Your task to perform on an android device: open a bookmark in the chrome app Image 0: 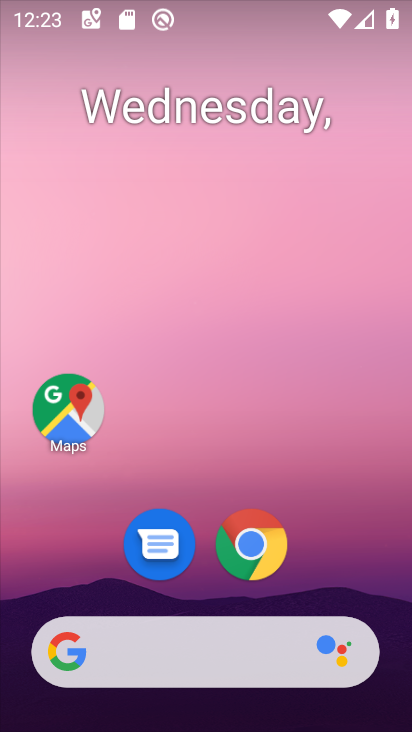
Step 0: drag from (212, 474) to (180, 143)
Your task to perform on an android device: open a bookmark in the chrome app Image 1: 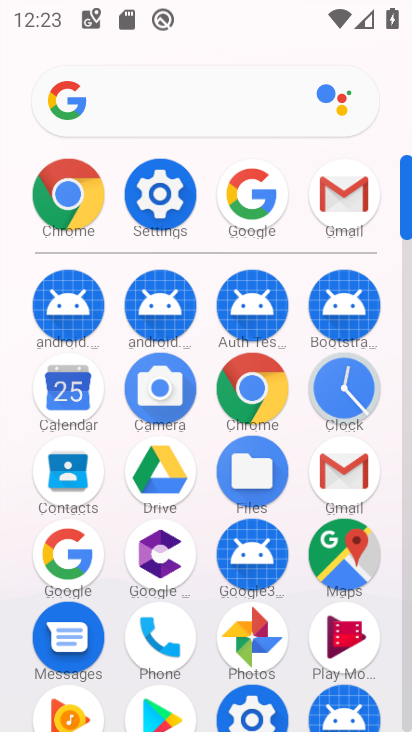
Step 1: click (254, 402)
Your task to perform on an android device: open a bookmark in the chrome app Image 2: 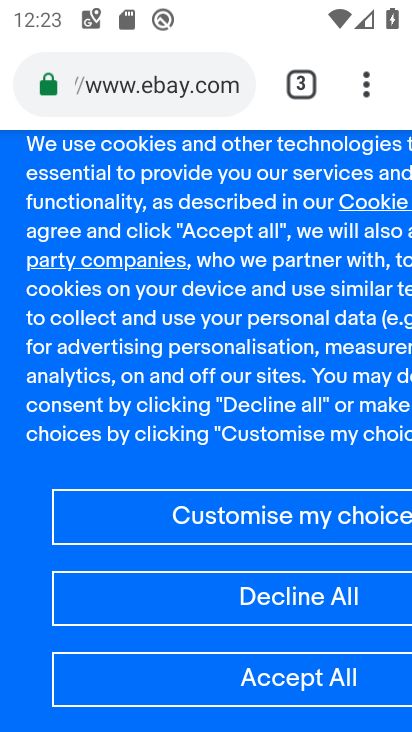
Step 2: click (364, 76)
Your task to perform on an android device: open a bookmark in the chrome app Image 3: 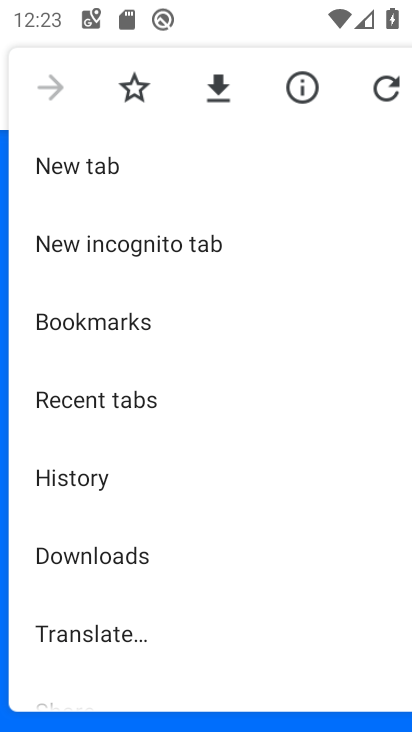
Step 3: click (159, 329)
Your task to perform on an android device: open a bookmark in the chrome app Image 4: 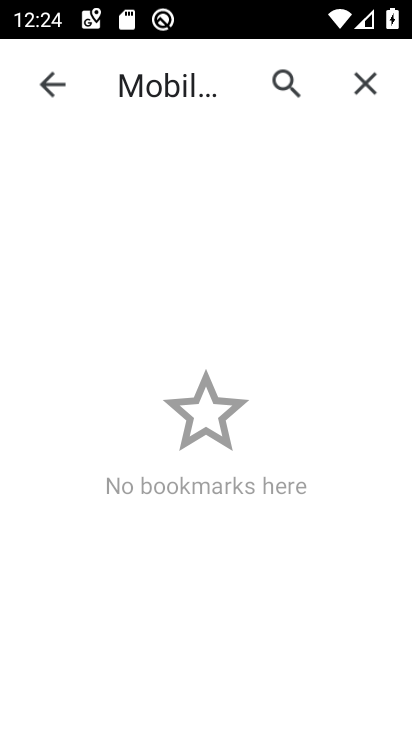
Step 4: task complete